Your task to perform on an android device: choose inbox layout in the gmail app Image 0: 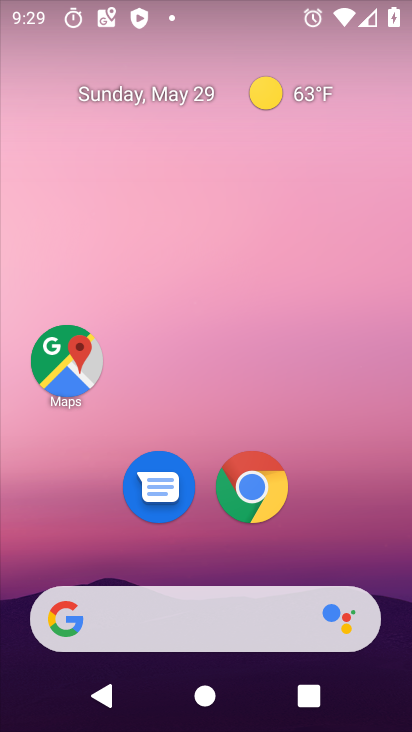
Step 0: drag from (234, 588) to (244, 102)
Your task to perform on an android device: choose inbox layout in the gmail app Image 1: 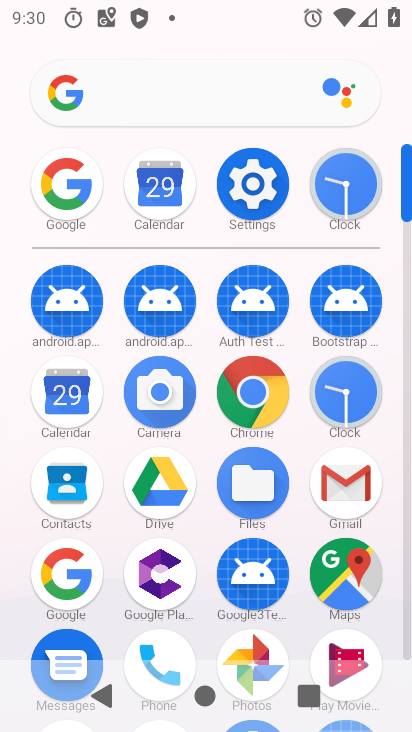
Step 1: drag from (312, 573) to (284, 291)
Your task to perform on an android device: choose inbox layout in the gmail app Image 2: 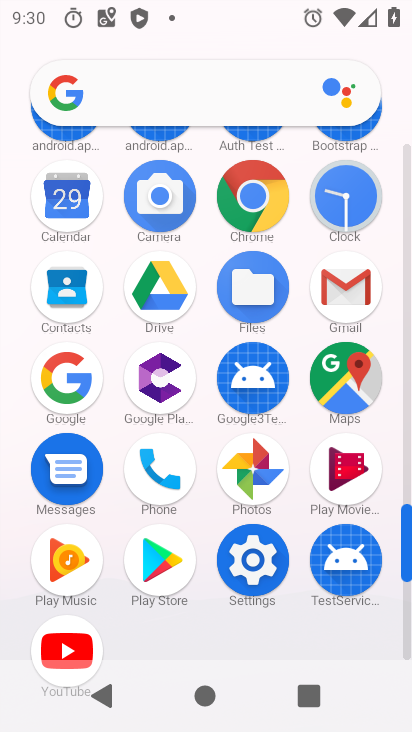
Step 2: click (348, 271)
Your task to perform on an android device: choose inbox layout in the gmail app Image 3: 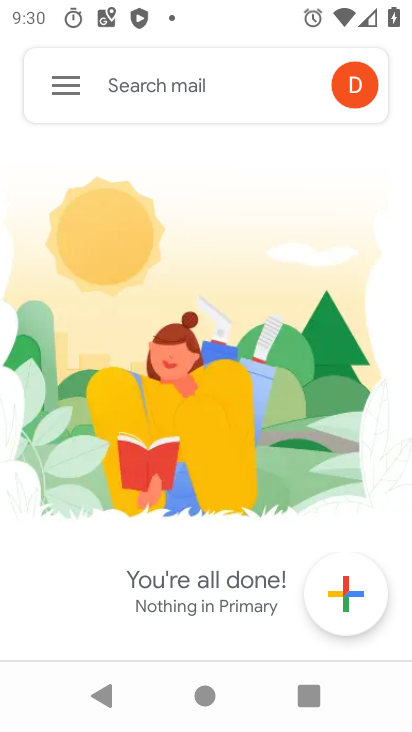
Step 3: click (65, 76)
Your task to perform on an android device: choose inbox layout in the gmail app Image 4: 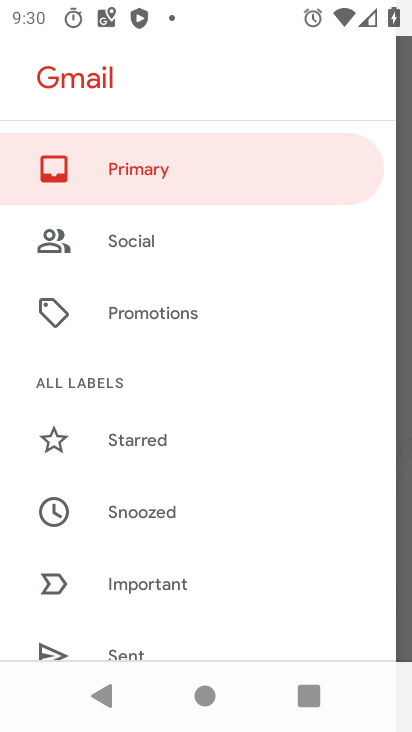
Step 4: task complete